Your task to perform on an android device: clear history in the chrome app Image 0: 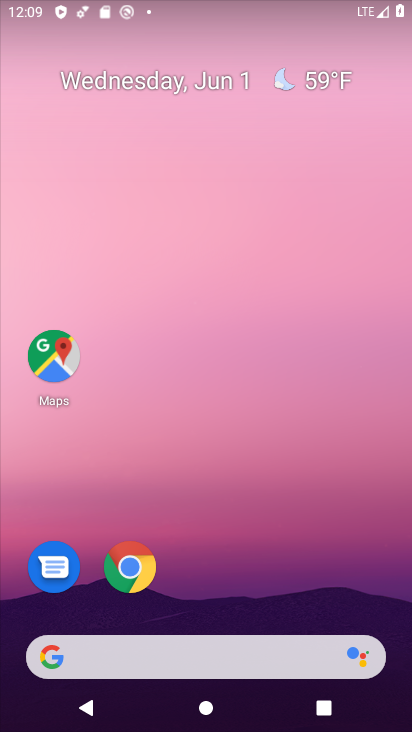
Step 0: click (137, 571)
Your task to perform on an android device: clear history in the chrome app Image 1: 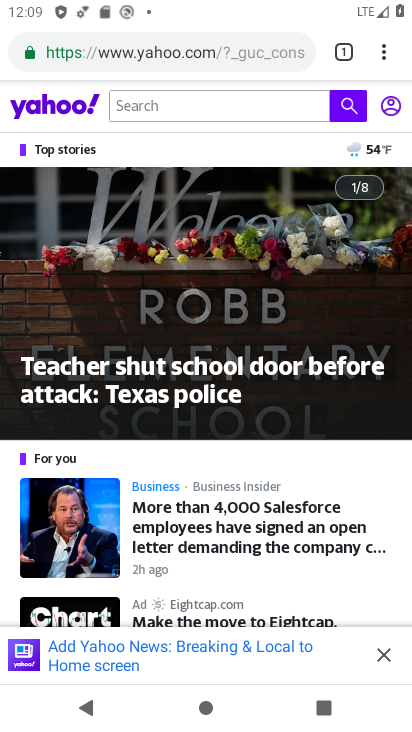
Step 1: click (388, 55)
Your task to perform on an android device: clear history in the chrome app Image 2: 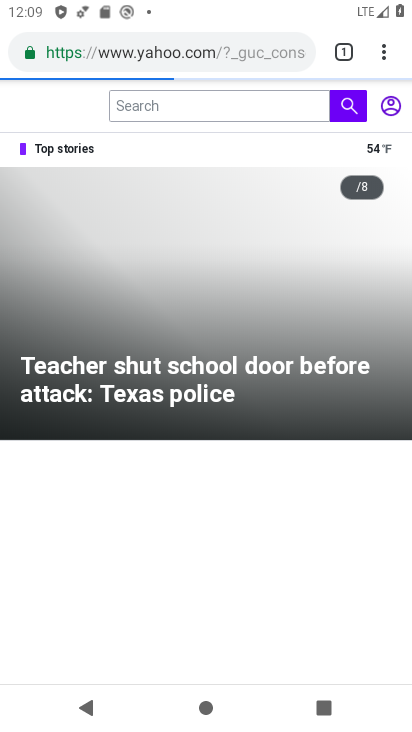
Step 2: drag from (388, 55) to (208, 308)
Your task to perform on an android device: clear history in the chrome app Image 3: 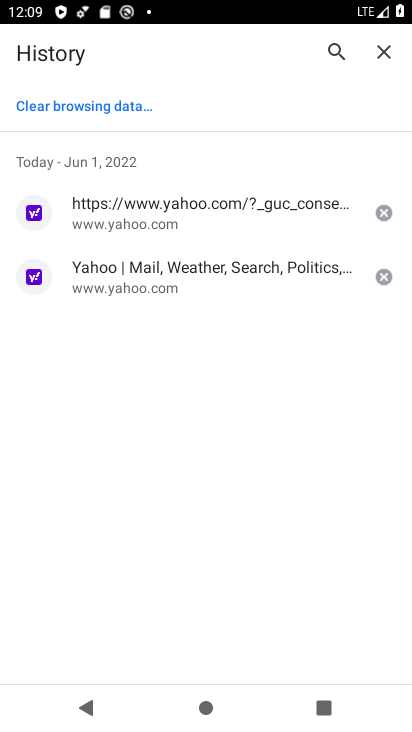
Step 3: click (91, 111)
Your task to perform on an android device: clear history in the chrome app Image 4: 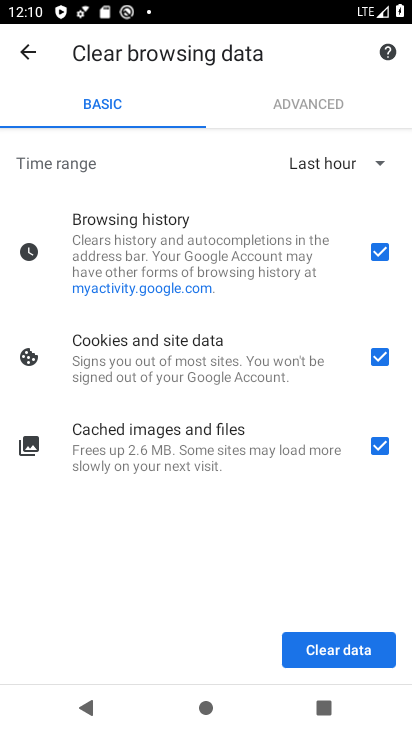
Step 4: click (382, 447)
Your task to perform on an android device: clear history in the chrome app Image 5: 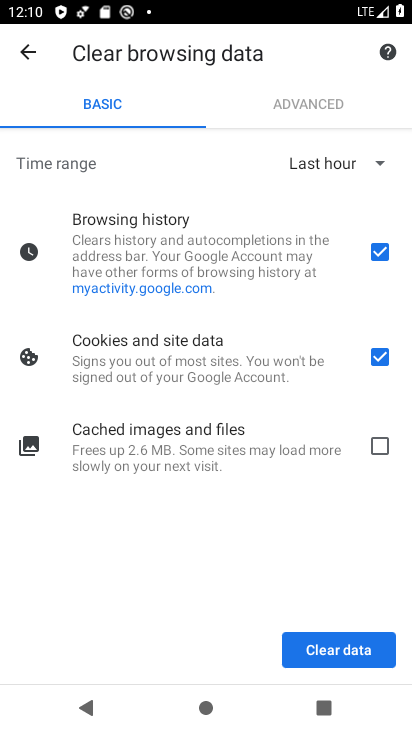
Step 5: click (370, 351)
Your task to perform on an android device: clear history in the chrome app Image 6: 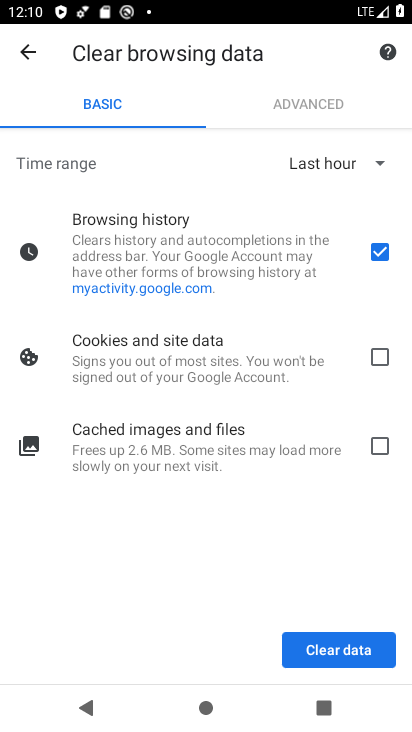
Step 6: click (348, 644)
Your task to perform on an android device: clear history in the chrome app Image 7: 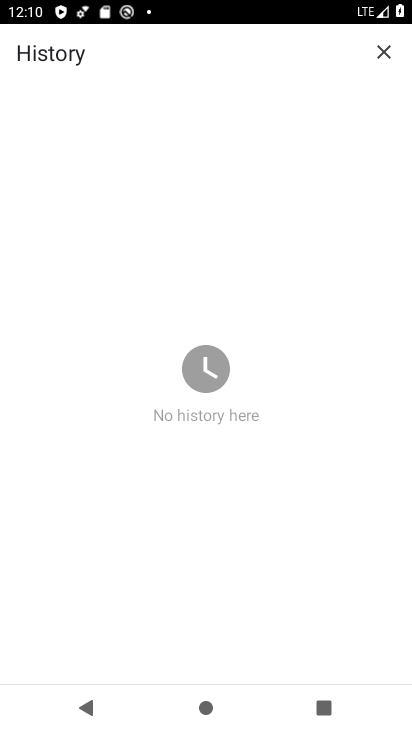
Step 7: task complete